Your task to perform on an android device: turn off translation in the chrome app Image 0: 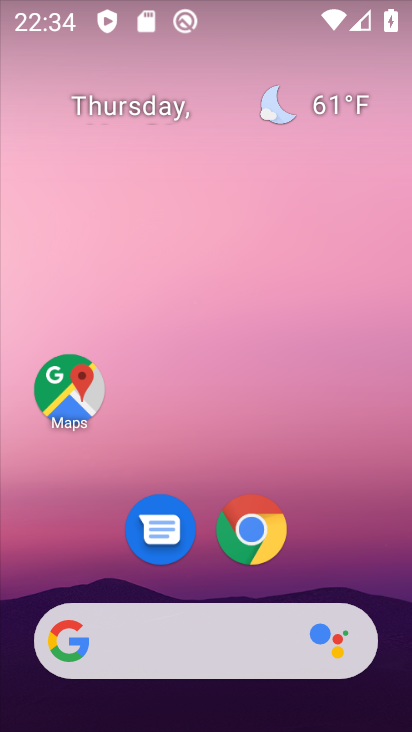
Step 0: click (275, 526)
Your task to perform on an android device: turn off translation in the chrome app Image 1: 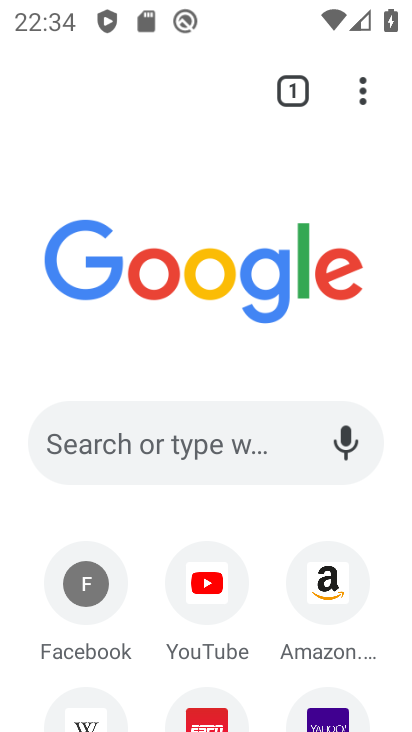
Step 1: click (367, 104)
Your task to perform on an android device: turn off translation in the chrome app Image 2: 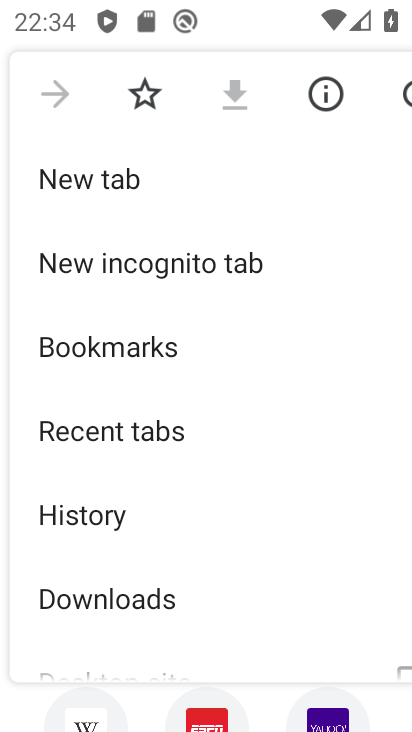
Step 2: drag from (193, 653) to (228, 306)
Your task to perform on an android device: turn off translation in the chrome app Image 3: 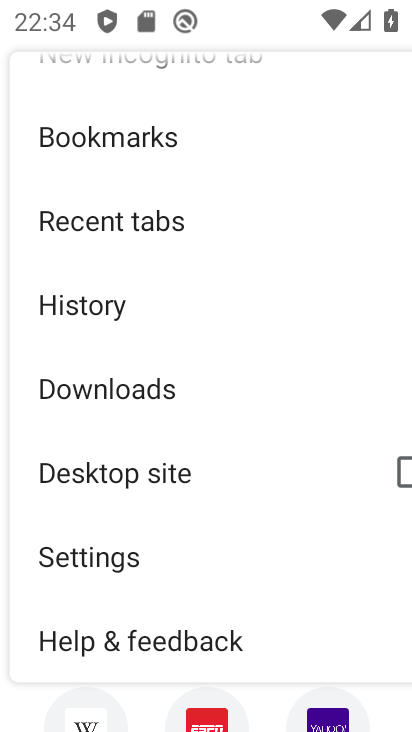
Step 3: click (185, 555)
Your task to perform on an android device: turn off translation in the chrome app Image 4: 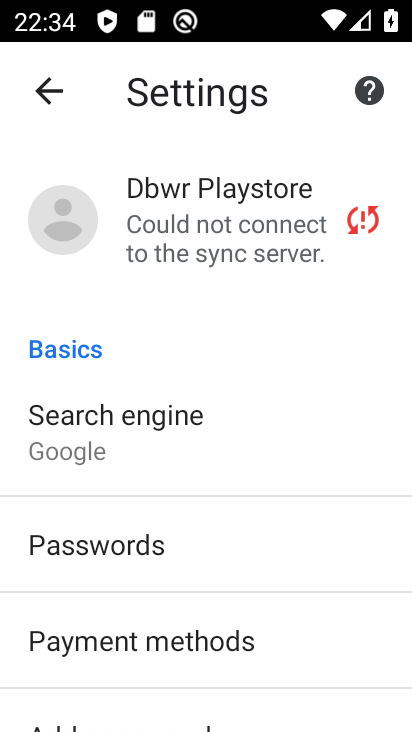
Step 4: drag from (224, 572) to (245, 239)
Your task to perform on an android device: turn off translation in the chrome app Image 5: 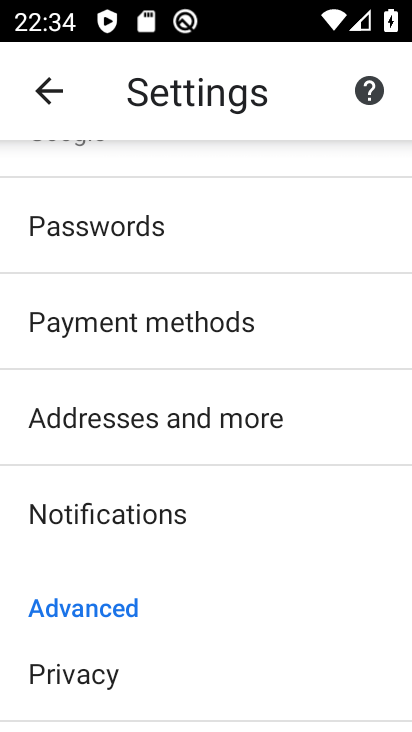
Step 5: drag from (190, 641) to (210, 312)
Your task to perform on an android device: turn off translation in the chrome app Image 6: 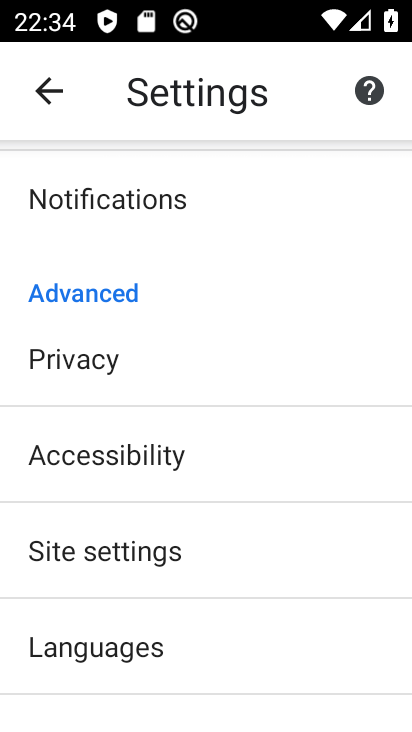
Step 6: click (212, 569)
Your task to perform on an android device: turn off translation in the chrome app Image 7: 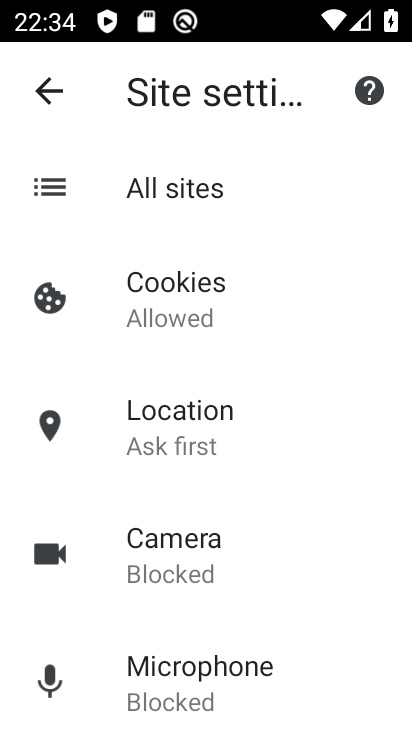
Step 7: task complete